Your task to perform on an android device: Open Google Chrome and click the shortcut for Amazon.com Image 0: 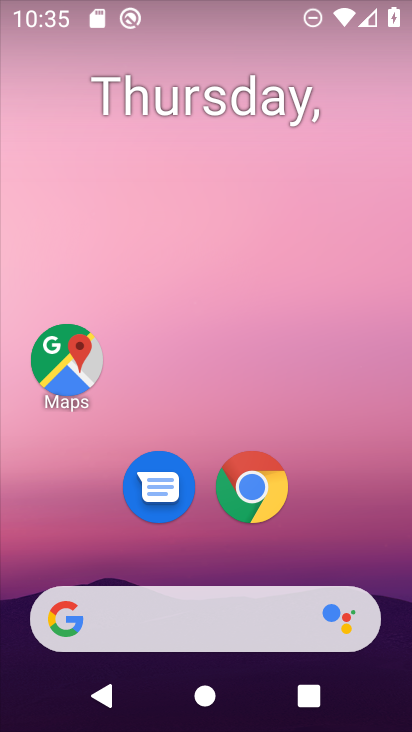
Step 0: click (270, 498)
Your task to perform on an android device: Open Google Chrome and click the shortcut for Amazon.com Image 1: 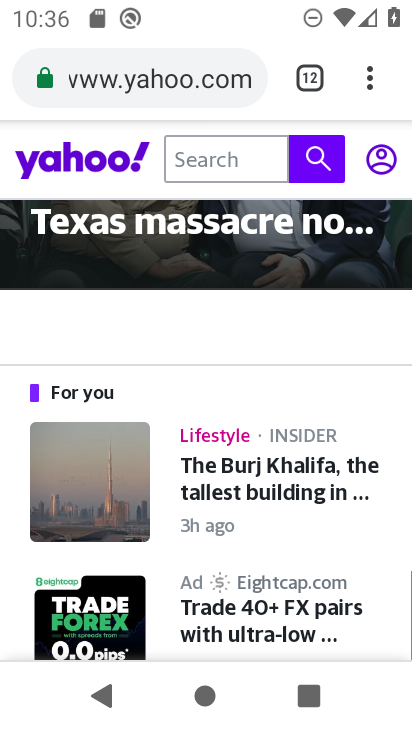
Step 1: click (312, 77)
Your task to perform on an android device: Open Google Chrome and click the shortcut for Amazon.com Image 2: 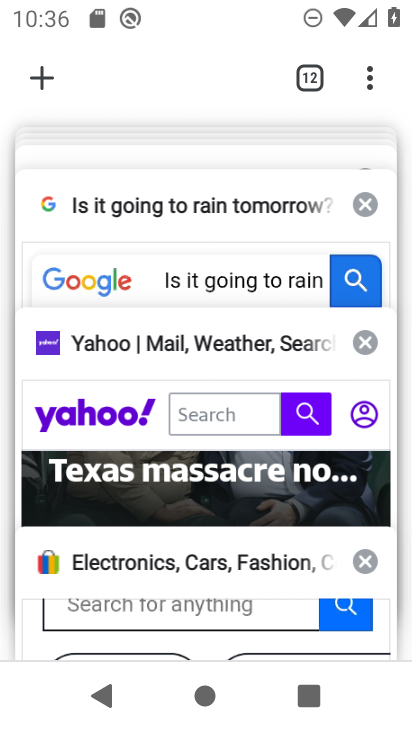
Step 2: click (46, 76)
Your task to perform on an android device: Open Google Chrome and click the shortcut for Amazon.com Image 3: 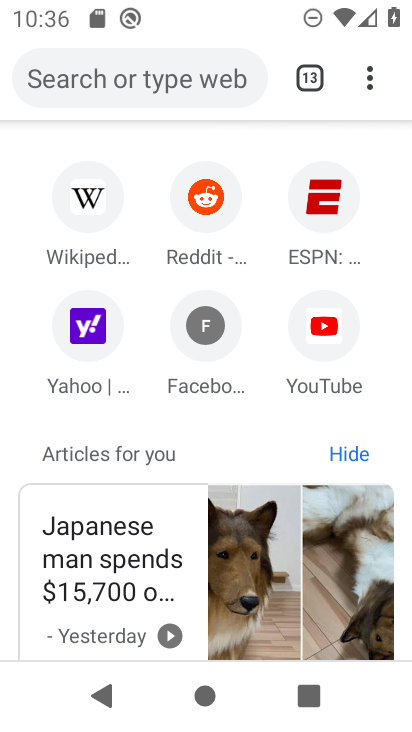
Step 3: click (310, 81)
Your task to perform on an android device: Open Google Chrome and click the shortcut for Amazon.com Image 4: 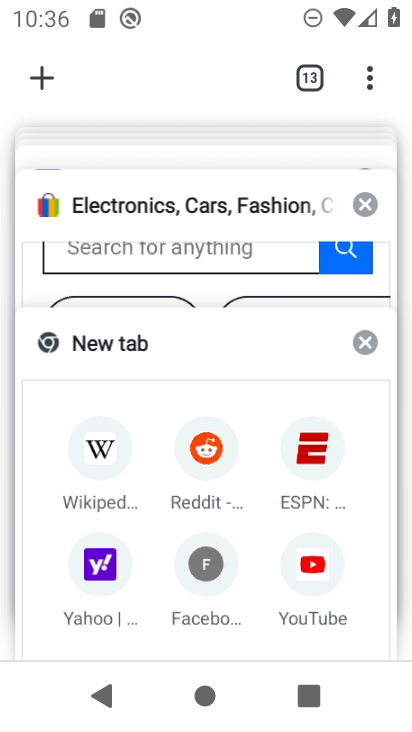
Step 4: drag from (241, 191) to (313, 670)
Your task to perform on an android device: Open Google Chrome and click the shortcut for Amazon.com Image 5: 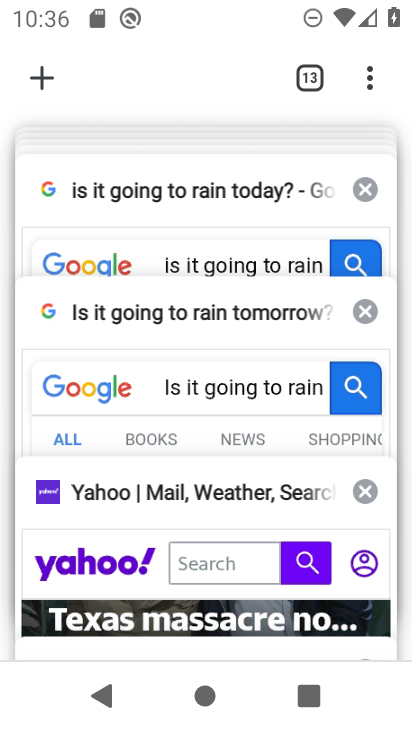
Step 5: drag from (216, 244) to (265, 642)
Your task to perform on an android device: Open Google Chrome and click the shortcut for Amazon.com Image 6: 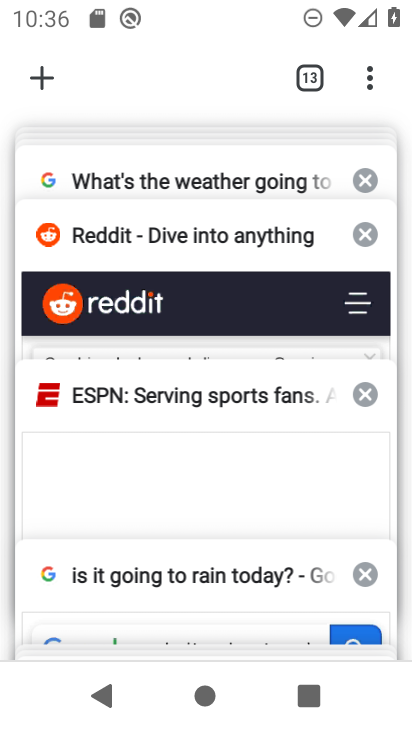
Step 6: drag from (202, 195) to (260, 545)
Your task to perform on an android device: Open Google Chrome and click the shortcut for Amazon.com Image 7: 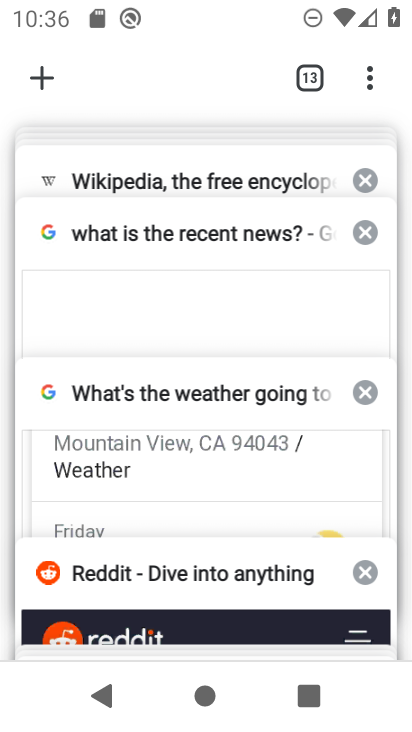
Step 7: drag from (298, 175) to (317, 706)
Your task to perform on an android device: Open Google Chrome and click the shortcut for Amazon.com Image 8: 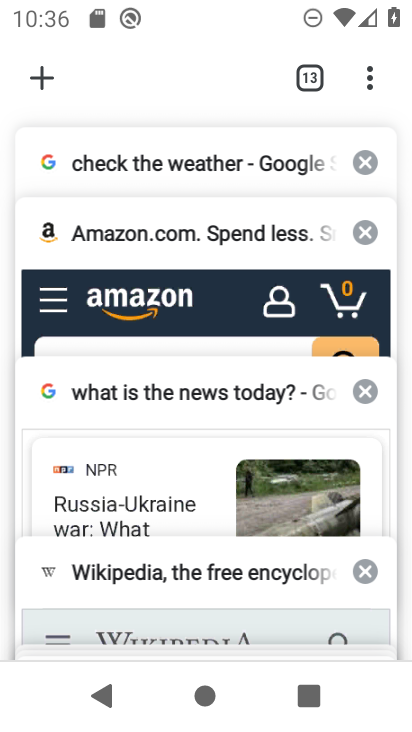
Step 8: click (242, 268)
Your task to perform on an android device: Open Google Chrome and click the shortcut for Amazon.com Image 9: 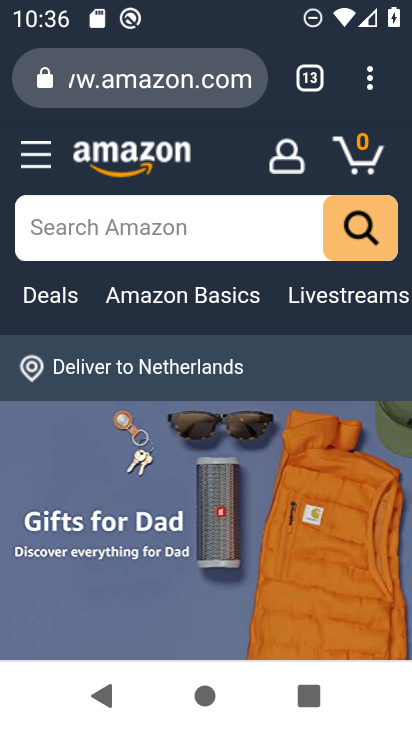
Step 9: task complete